Your task to perform on an android device: refresh tabs in the chrome app Image 0: 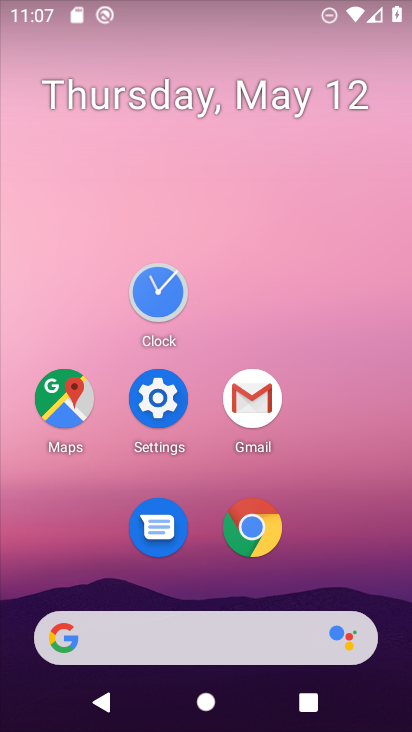
Step 0: click (249, 513)
Your task to perform on an android device: refresh tabs in the chrome app Image 1: 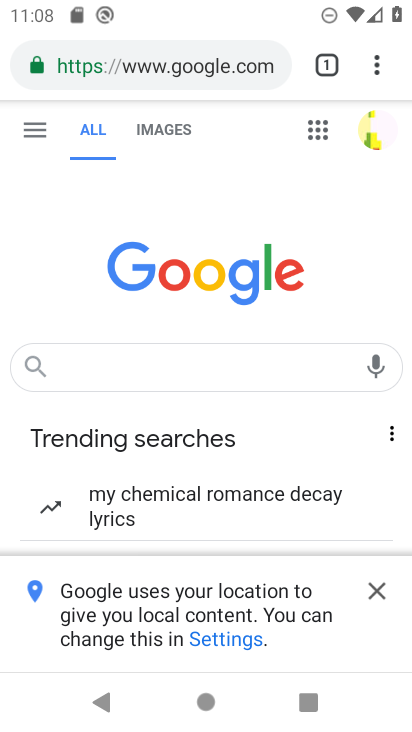
Step 1: click (376, 64)
Your task to perform on an android device: refresh tabs in the chrome app Image 2: 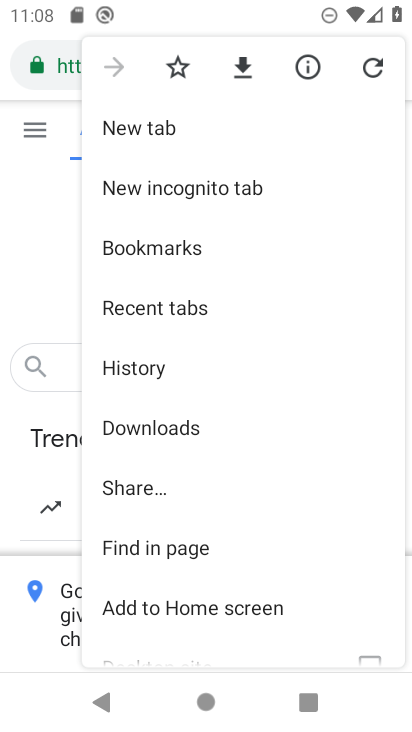
Step 2: click (358, 67)
Your task to perform on an android device: refresh tabs in the chrome app Image 3: 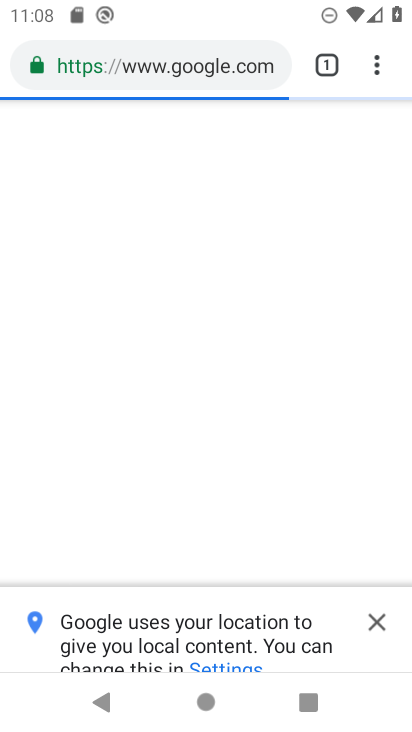
Step 3: task complete